Your task to perform on an android device: open a new tab in the chrome app Image 0: 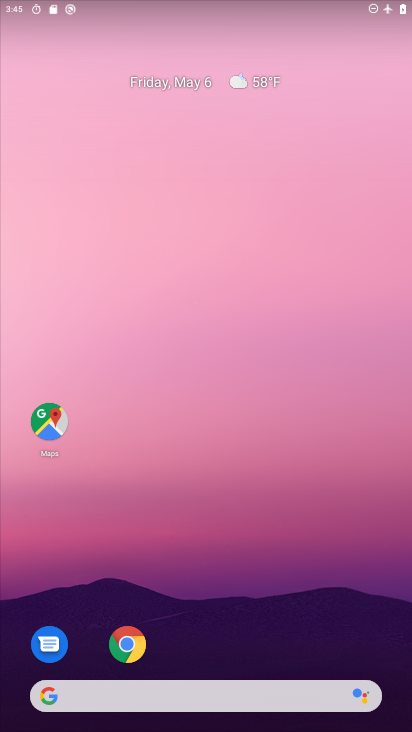
Step 0: click (123, 645)
Your task to perform on an android device: open a new tab in the chrome app Image 1: 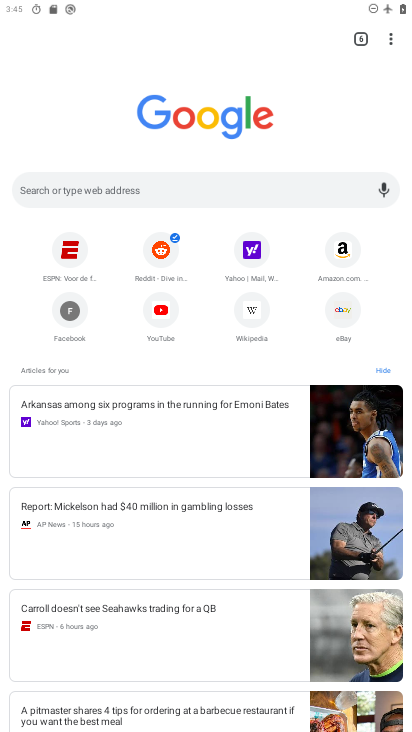
Step 1: click (391, 42)
Your task to perform on an android device: open a new tab in the chrome app Image 2: 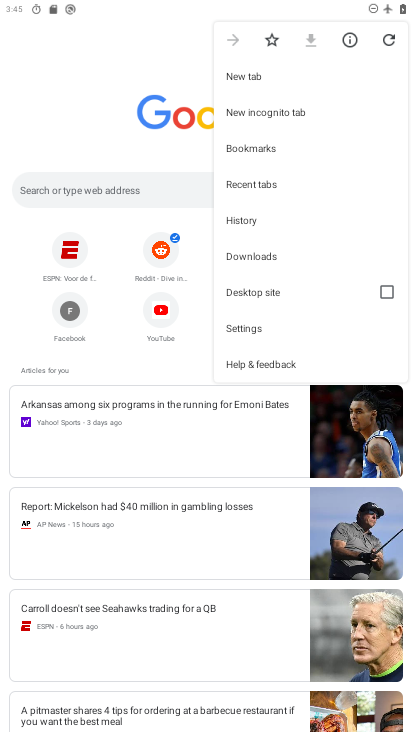
Step 2: click (246, 73)
Your task to perform on an android device: open a new tab in the chrome app Image 3: 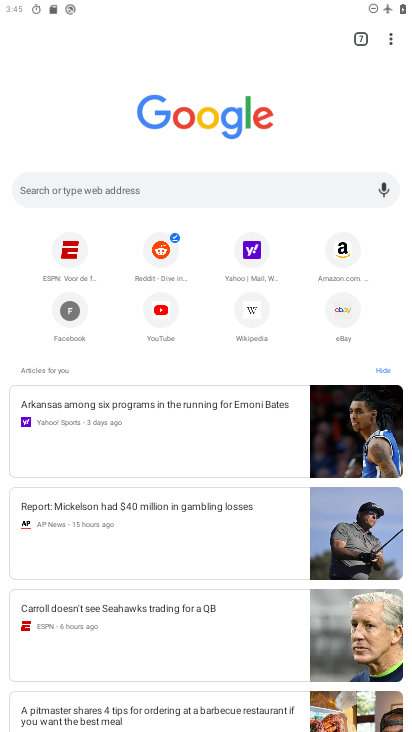
Step 3: task complete